Your task to perform on an android device: turn on bluetooth scan Image 0: 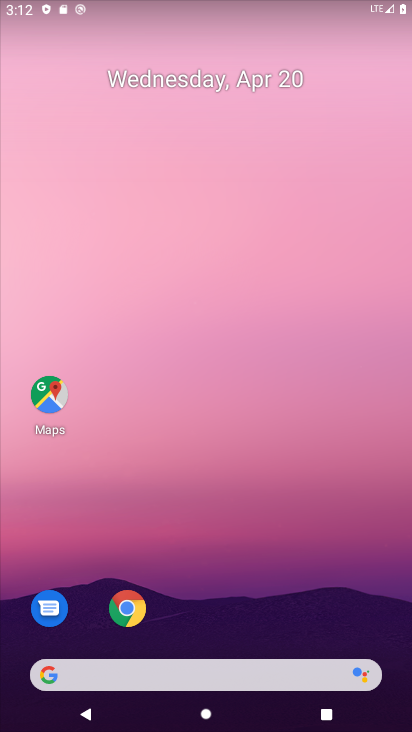
Step 0: drag from (207, 637) to (136, 36)
Your task to perform on an android device: turn on bluetooth scan Image 1: 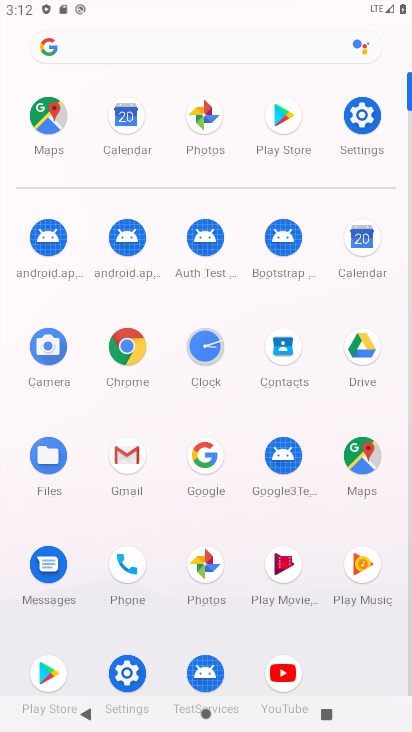
Step 1: click (355, 124)
Your task to perform on an android device: turn on bluetooth scan Image 2: 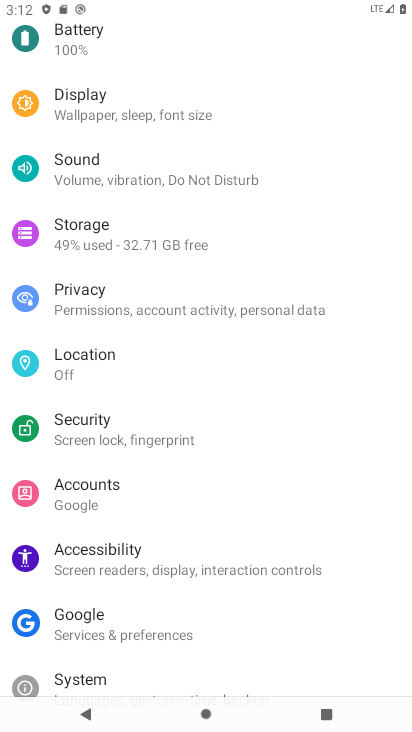
Step 2: click (128, 349)
Your task to perform on an android device: turn on bluetooth scan Image 3: 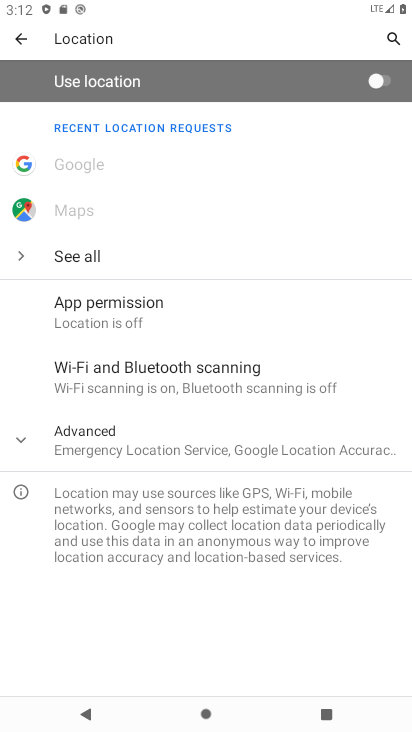
Step 3: click (137, 390)
Your task to perform on an android device: turn on bluetooth scan Image 4: 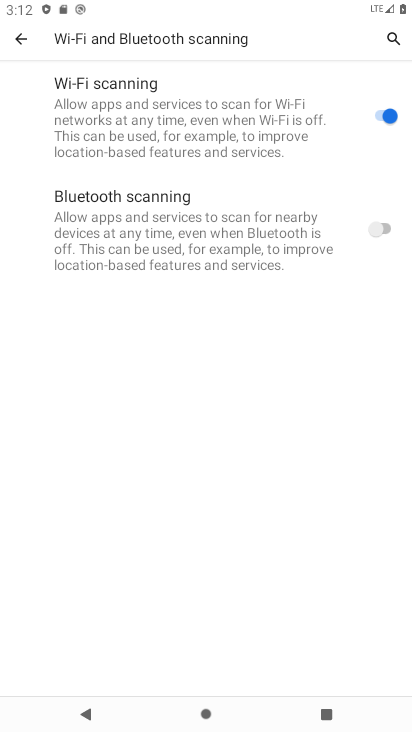
Step 4: click (363, 233)
Your task to perform on an android device: turn on bluetooth scan Image 5: 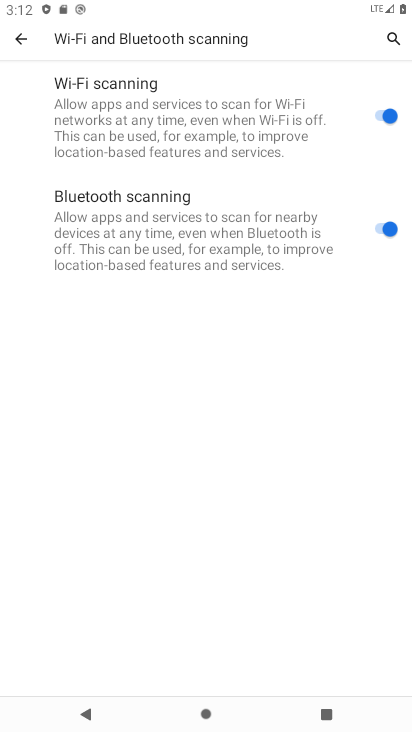
Step 5: task complete